Your task to perform on an android device: toggle pop-ups in chrome Image 0: 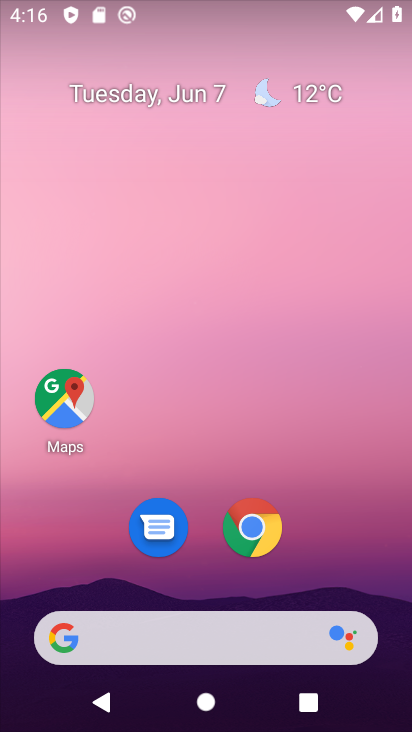
Step 0: click (252, 527)
Your task to perform on an android device: toggle pop-ups in chrome Image 1: 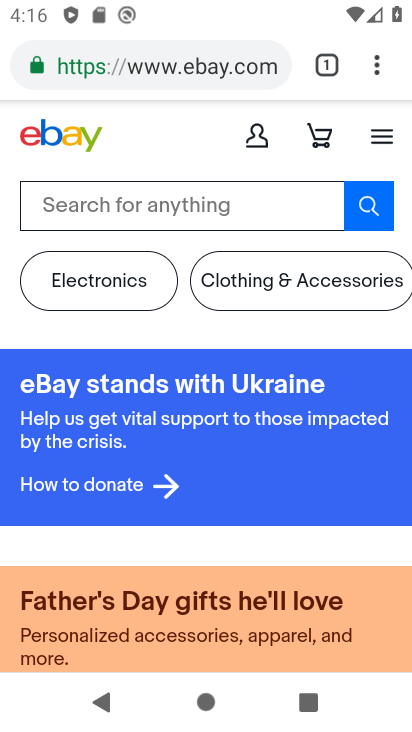
Step 1: click (375, 64)
Your task to perform on an android device: toggle pop-ups in chrome Image 2: 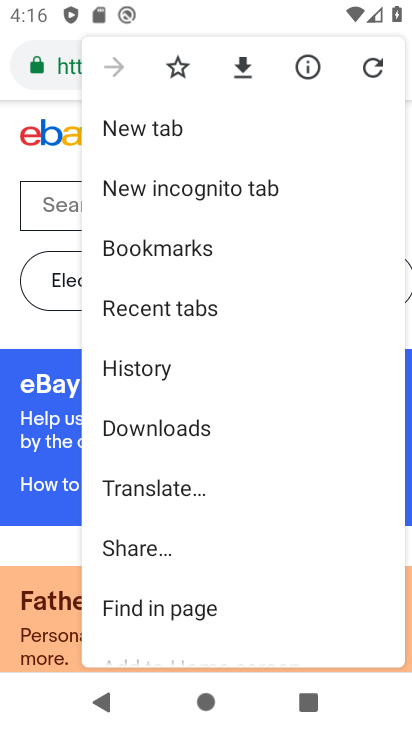
Step 2: drag from (201, 532) to (270, 347)
Your task to perform on an android device: toggle pop-ups in chrome Image 3: 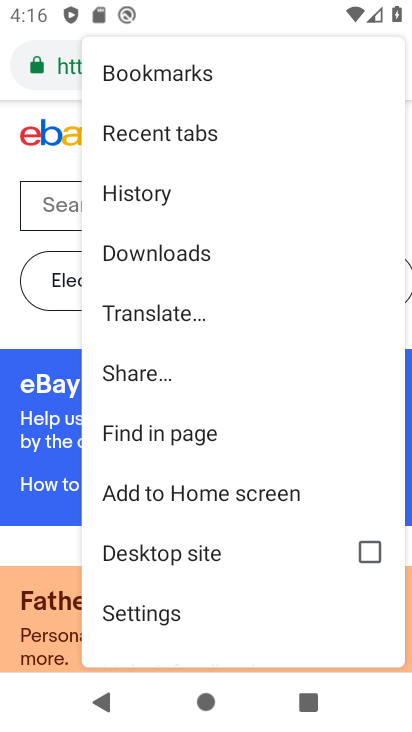
Step 3: drag from (170, 512) to (197, 409)
Your task to perform on an android device: toggle pop-ups in chrome Image 4: 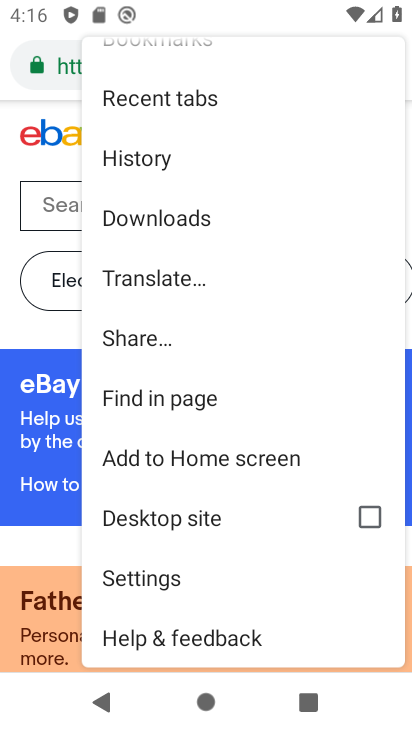
Step 4: click (137, 568)
Your task to perform on an android device: toggle pop-ups in chrome Image 5: 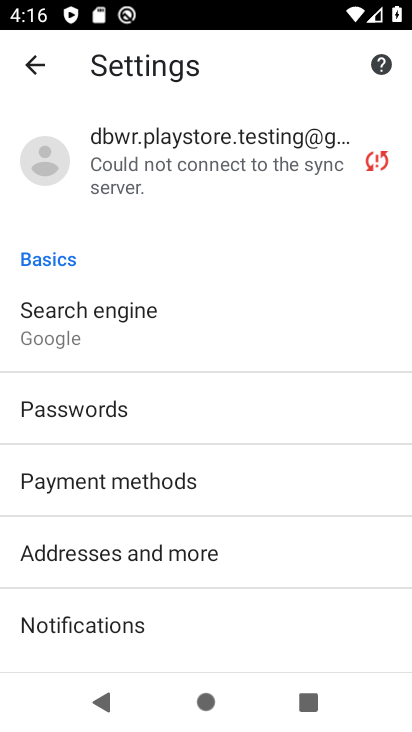
Step 5: drag from (160, 604) to (205, 481)
Your task to perform on an android device: toggle pop-ups in chrome Image 6: 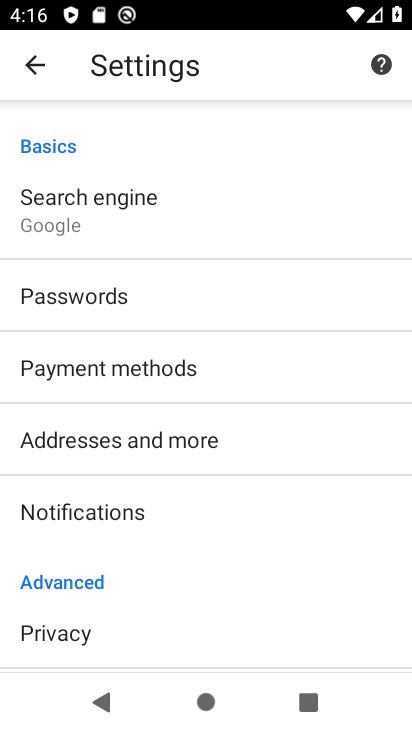
Step 6: drag from (155, 558) to (193, 428)
Your task to perform on an android device: toggle pop-ups in chrome Image 7: 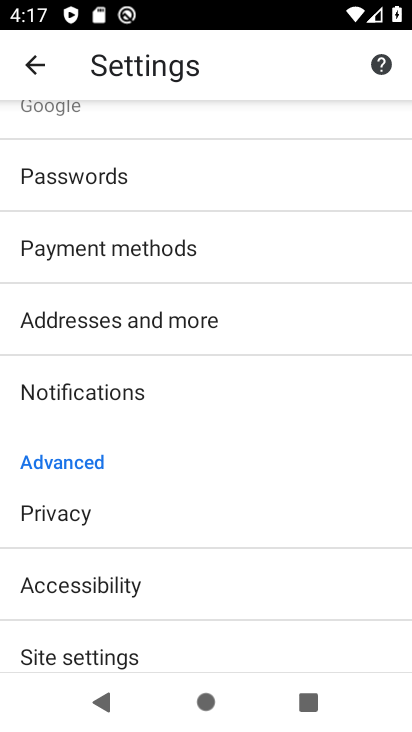
Step 7: click (100, 646)
Your task to perform on an android device: toggle pop-ups in chrome Image 8: 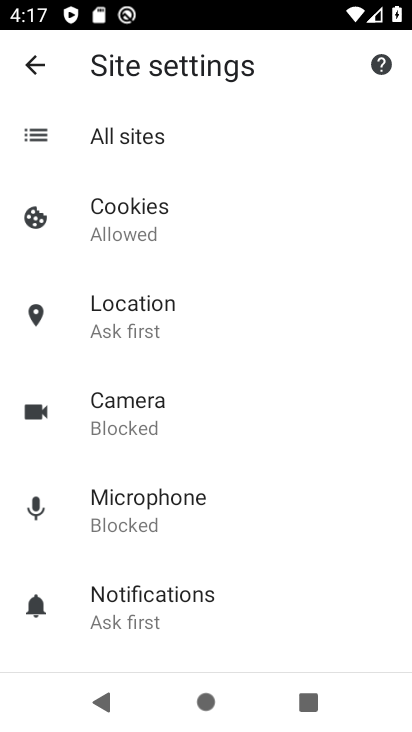
Step 8: drag from (188, 550) to (230, 410)
Your task to perform on an android device: toggle pop-ups in chrome Image 9: 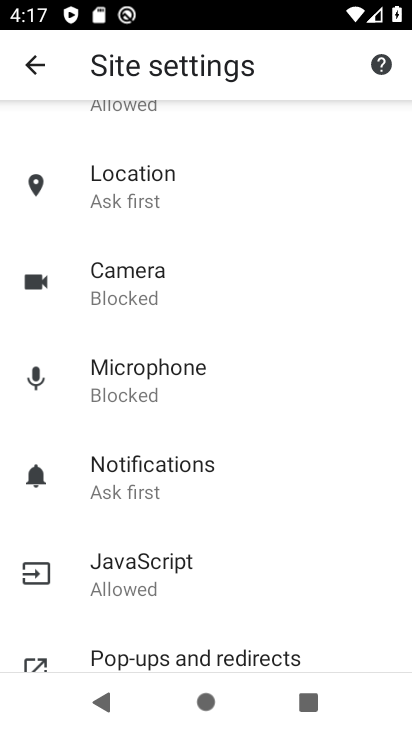
Step 9: drag from (202, 592) to (250, 470)
Your task to perform on an android device: toggle pop-ups in chrome Image 10: 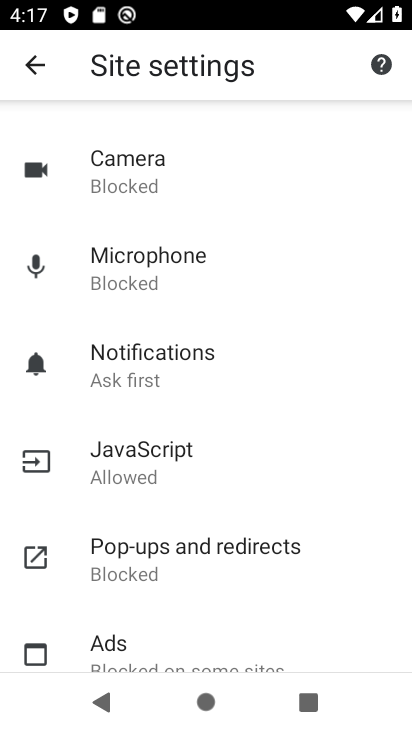
Step 10: click (202, 555)
Your task to perform on an android device: toggle pop-ups in chrome Image 11: 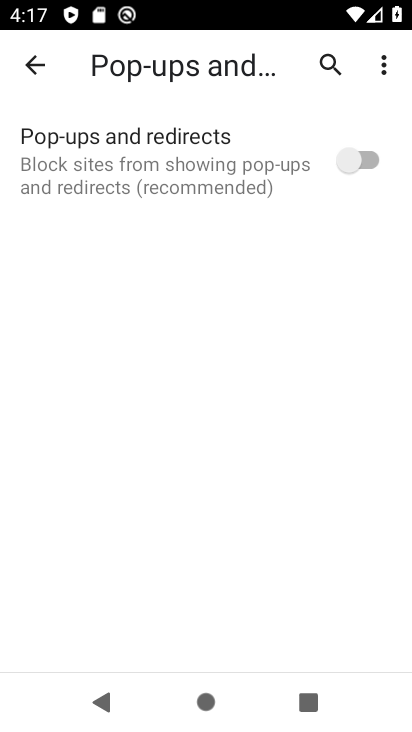
Step 11: click (342, 163)
Your task to perform on an android device: toggle pop-ups in chrome Image 12: 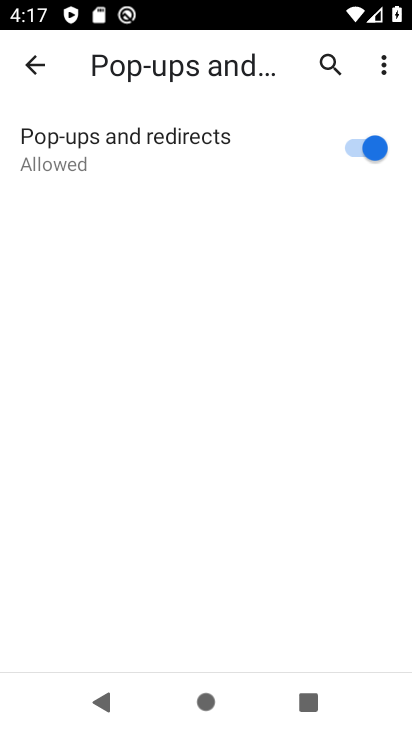
Step 12: task complete